Your task to perform on an android device: check storage Image 0: 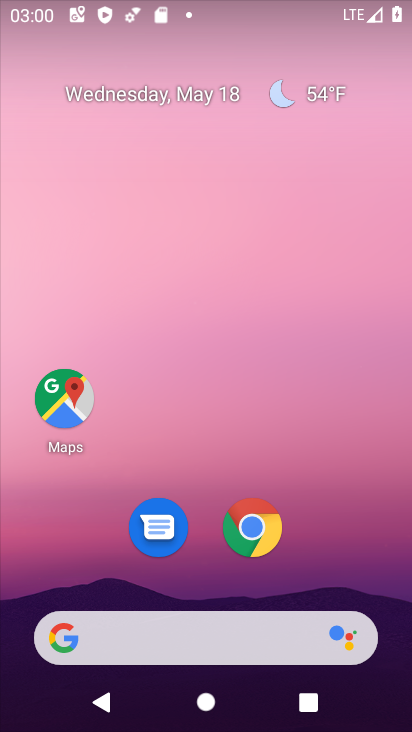
Step 0: drag from (201, 598) to (203, 51)
Your task to perform on an android device: check storage Image 1: 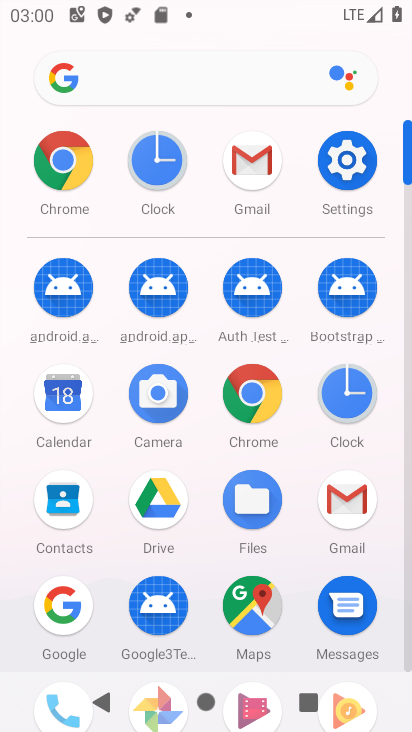
Step 1: click (329, 165)
Your task to perform on an android device: check storage Image 2: 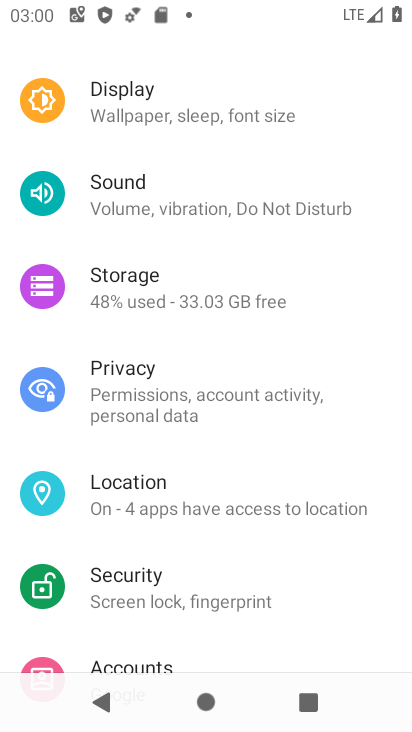
Step 2: click (154, 290)
Your task to perform on an android device: check storage Image 3: 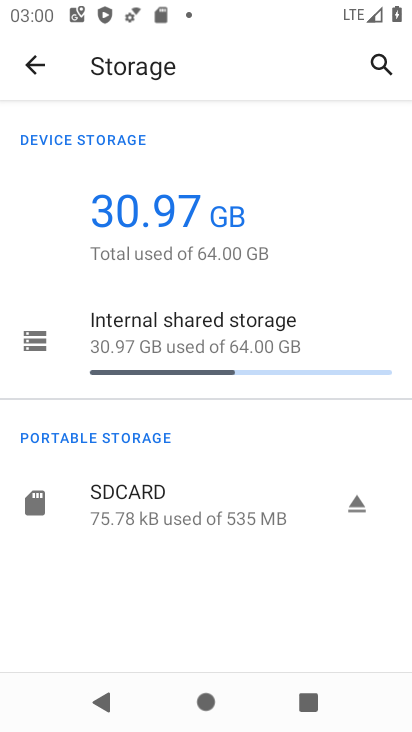
Step 3: click (192, 328)
Your task to perform on an android device: check storage Image 4: 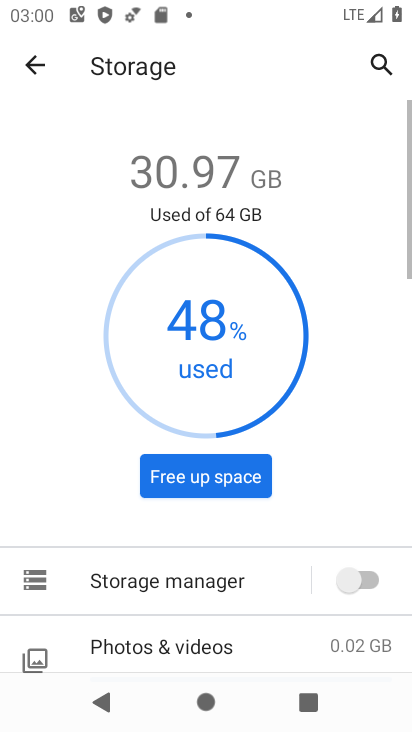
Step 4: task complete